Your task to perform on an android device: Open my contact list Image 0: 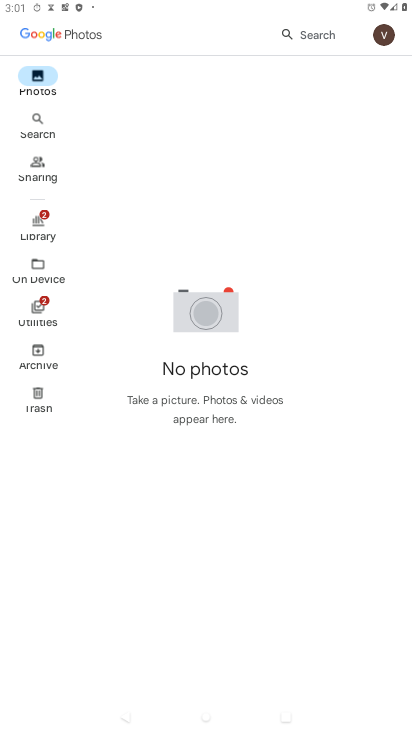
Step 0: press home button
Your task to perform on an android device: Open my contact list Image 1: 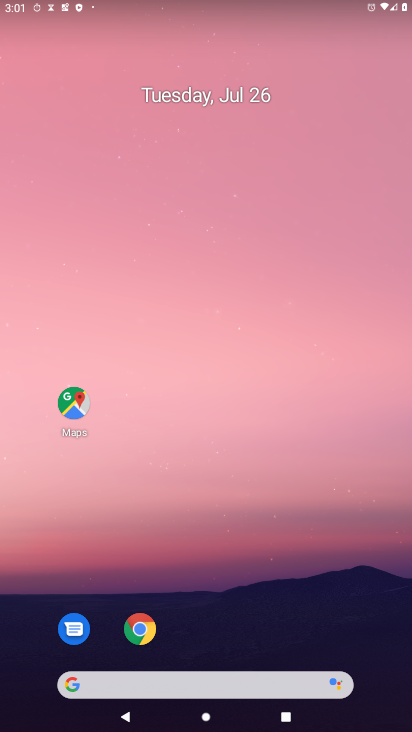
Step 1: drag from (247, 647) to (323, 4)
Your task to perform on an android device: Open my contact list Image 2: 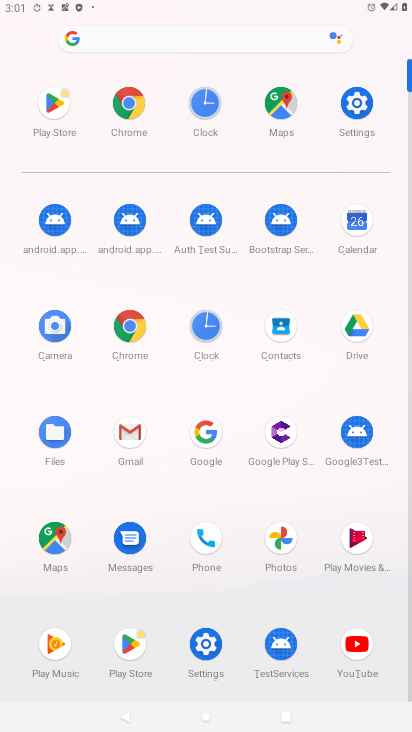
Step 2: click (272, 325)
Your task to perform on an android device: Open my contact list Image 3: 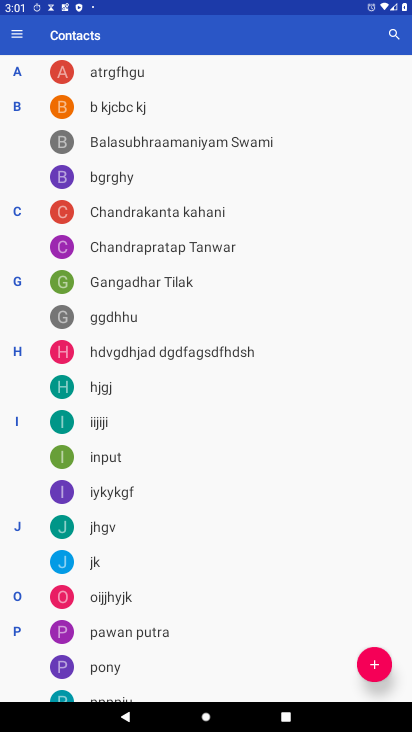
Step 3: task complete